Your task to perform on an android device: turn off data saver in the chrome app Image 0: 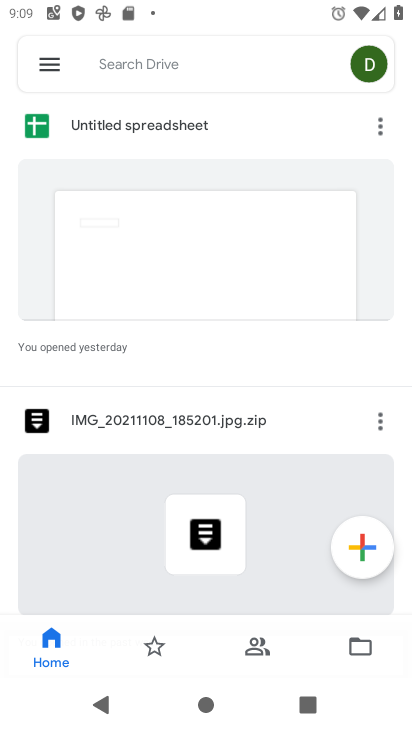
Step 0: press home button
Your task to perform on an android device: turn off data saver in the chrome app Image 1: 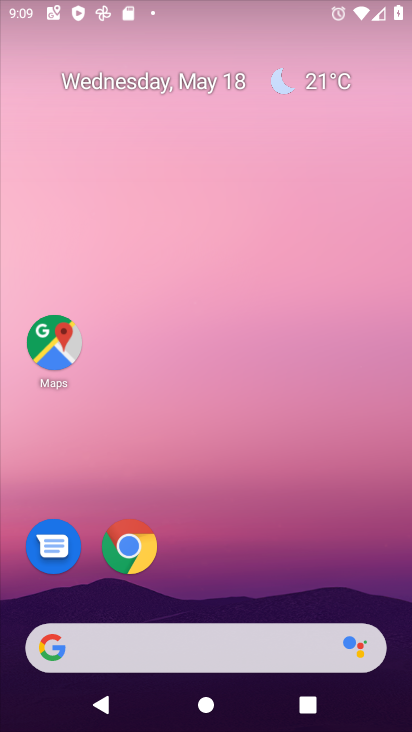
Step 1: drag from (392, 645) to (276, 69)
Your task to perform on an android device: turn off data saver in the chrome app Image 2: 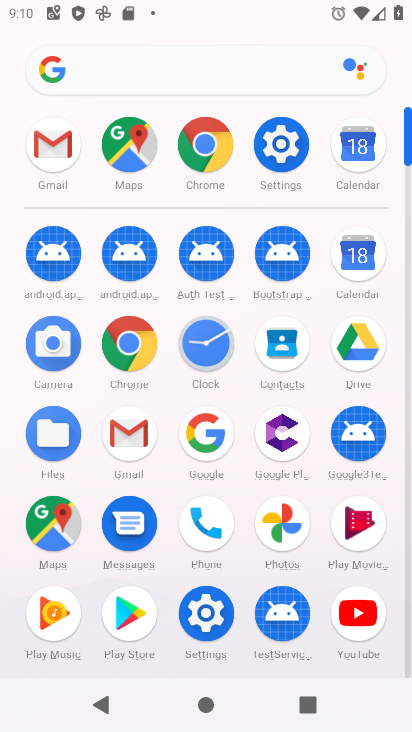
Step 2: click (112, 347)
Your task to perform on an android device: turn off data saver in the chrome app Image 3: 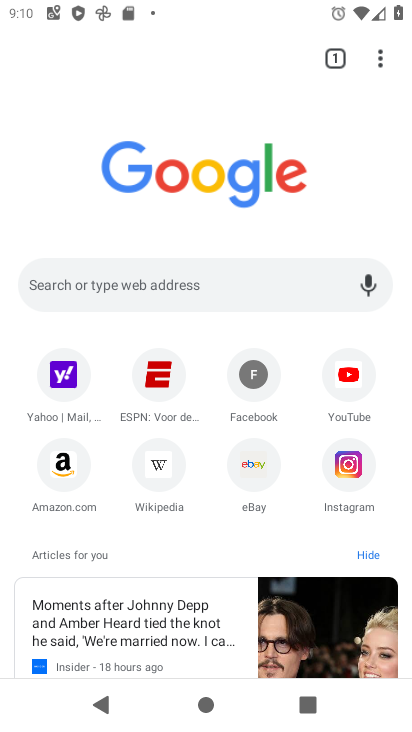
Step 3: click (386, 59)
Your task to perform on an android device: turn off data saver in the chrome app Image 4: 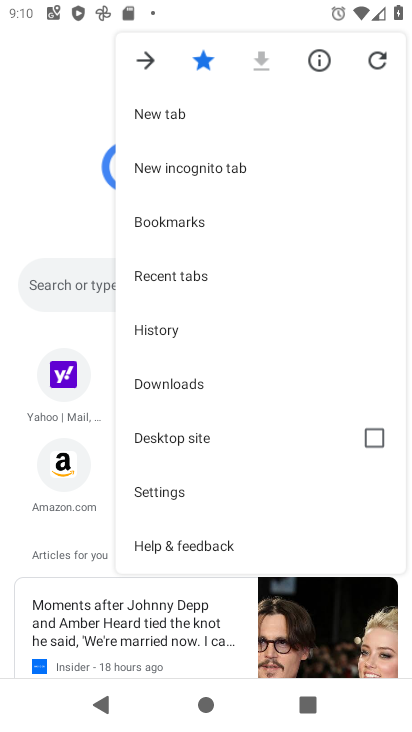
Step 4: click (188, 483)
Your task to perform on an android device: turn off data saver in the chrome app Image 5: 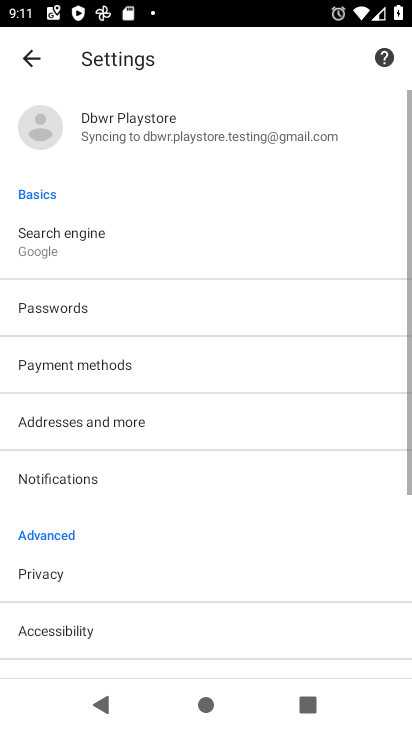
Step 5: drag from (107, 609) to (160, 195)
Your task to perform on an android device: turn off data saver in the chrome app Image 6: 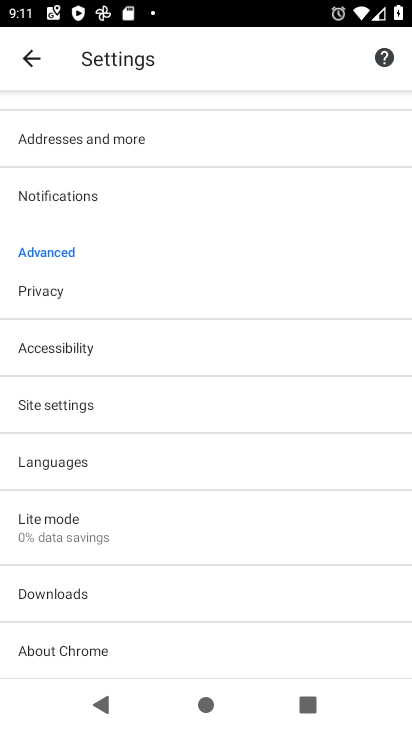
Step 6: click (118, 531)
Your task to perform on an android device: turn off data saver in the chrome app Image 7: 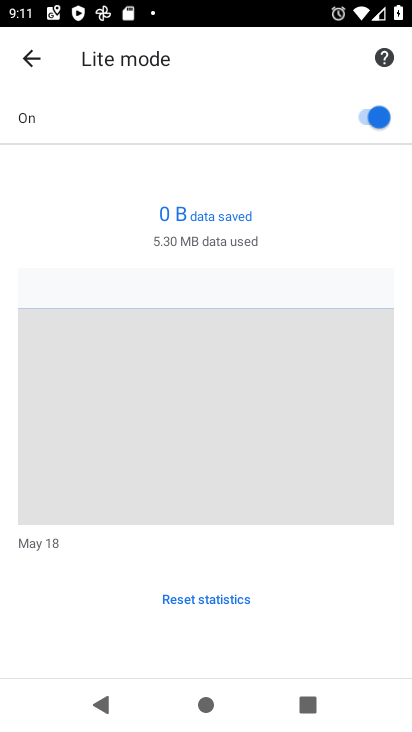
Step 7: click (361, 123)
Your task to perform on an android device: turn off data saver in the chrome app Image 8: 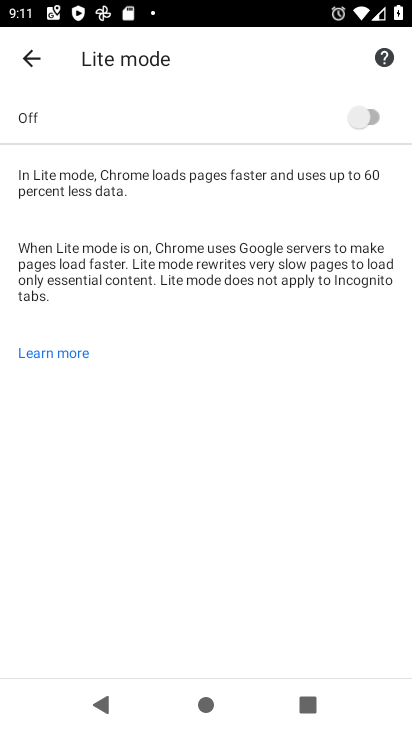
Step 8: task complete